Your task to perform on an android device: open a bookmark in the chrome app Image 0: 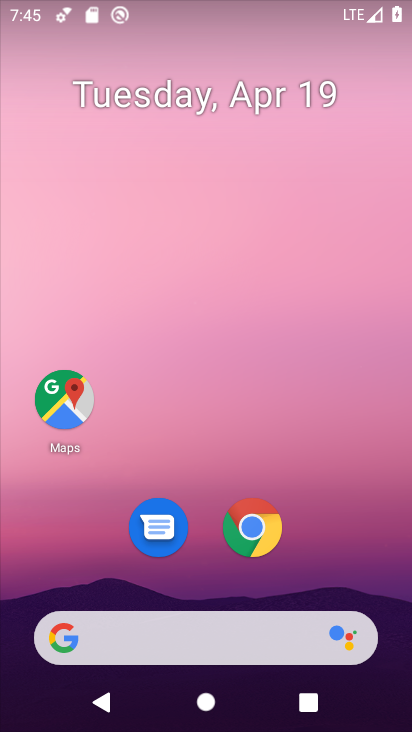
Step 0: click (270, 537)
Your task to perform on an android device: open a bookmark in the chrome app Image 1: 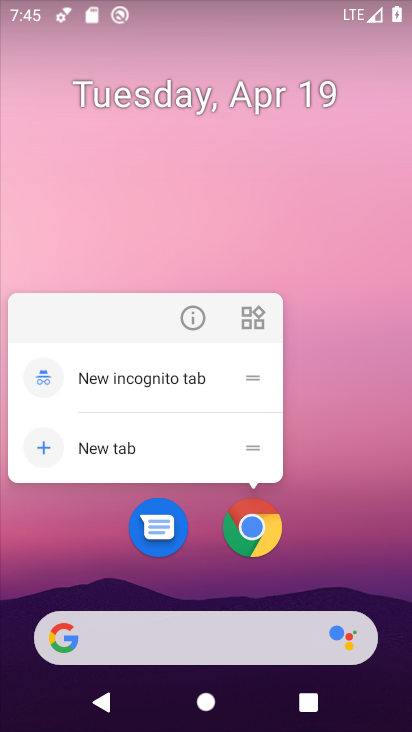
Step 1: click (270, 537)
Your task to perform on an android device: open a bookmark in the chrome app Image 2: 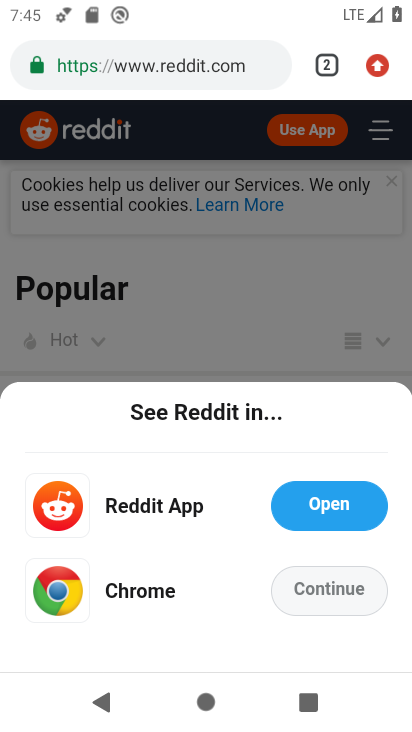
Step 2: click (375, 69)
Your task to perform on an android device: open a bookmark in the chrome app Image 3: 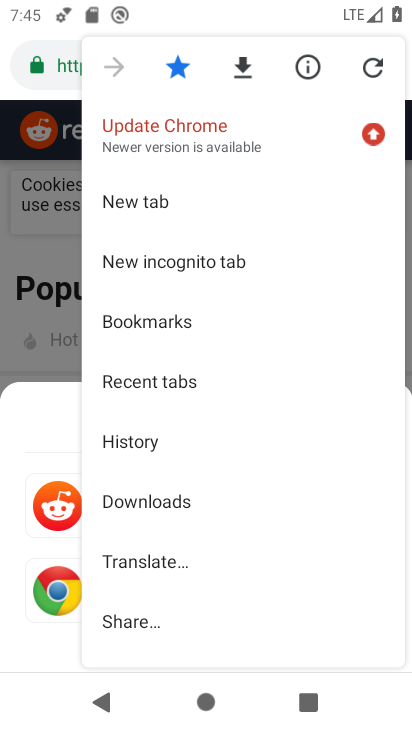
Step 3: click (176, 327)
Your task to perform on an android device: open a bookmark in the chrome app Image 4: 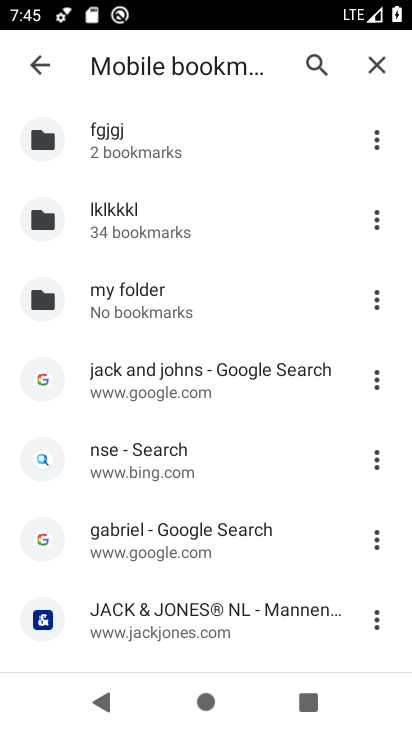
Step 4: task complete